Your task to perform on an android device: empty trash in the gmail app Image 0: 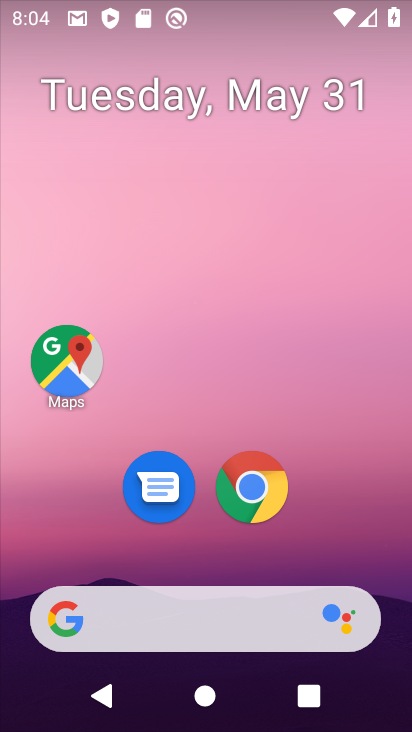
Step 0: drag from (151, 717) to (106, 38)
Your task to perform on an android device: empty trash in the gmail app Image 1: 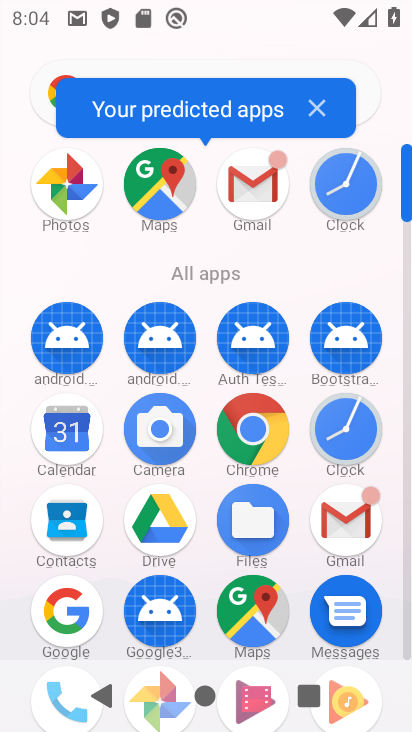
Step 1: click (254, 186)
Your task to perform on an android device: empty trash in the gmail app Image 2: 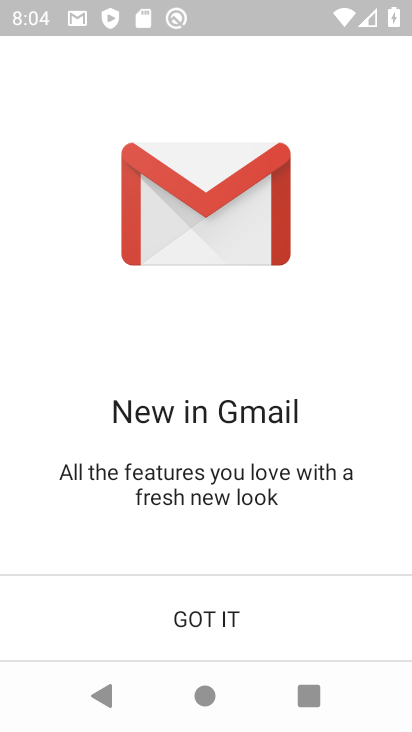
Step 2: click (196, 621)
Your task to perform on an android device: empty trash in the gmail app Image 3: 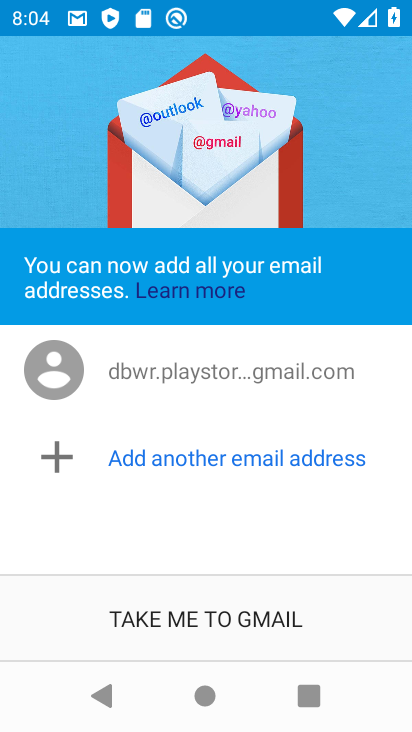
Step 3: click (167, 603)
Your task to perform on an android device: empty trash in the gmail app Image 4: 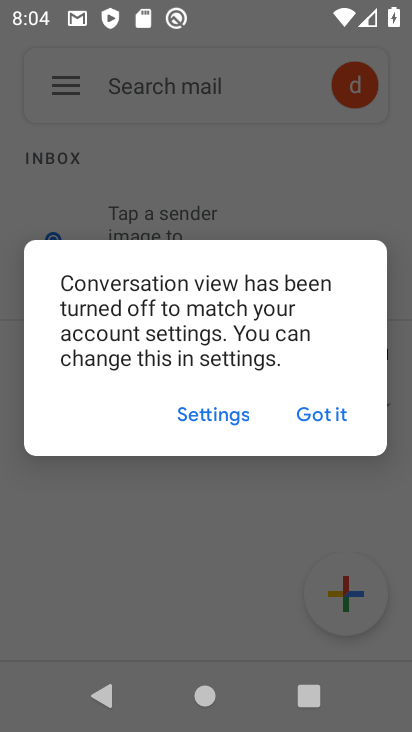
Step 4: click (322, 414)
Your task to perform on an android device: empty trash in the gmail app Image 5: 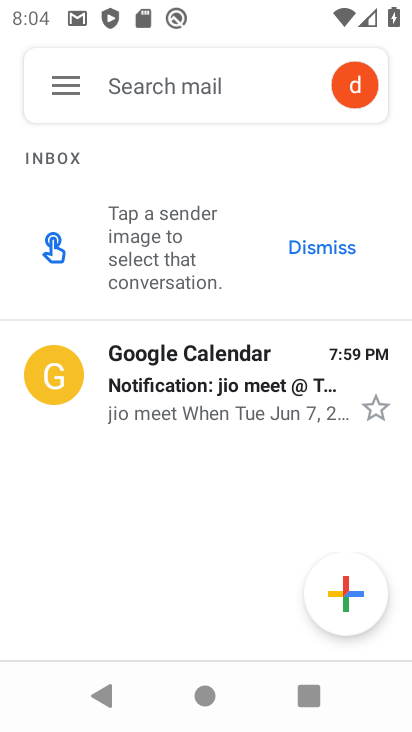
Step 5: click (44, 79)
Your task to perform on an android device: empty trash in the gmail app Image 6: 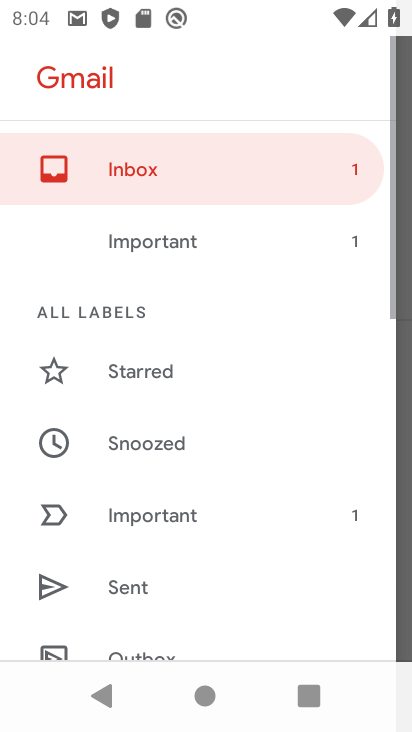
Step 6: drag from (138, 571) to (132, 97)
Your task to perform on an android device: empty trash in the gmail app Image 7: 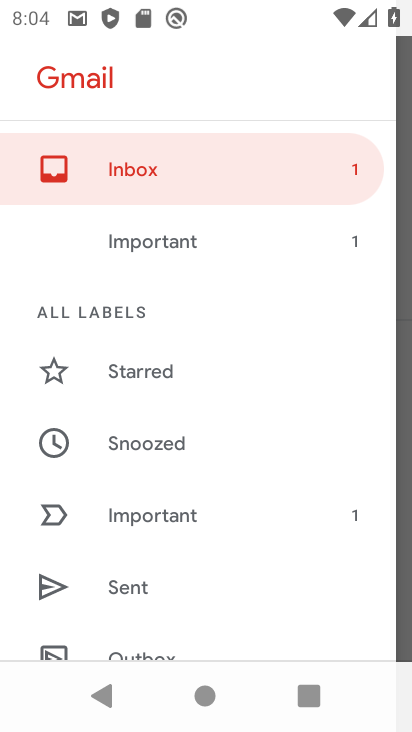
Step 7: drag from (186, 611) to (134, 150)
Your task to perform on an android device: empty trash in the gmail app Image 8: 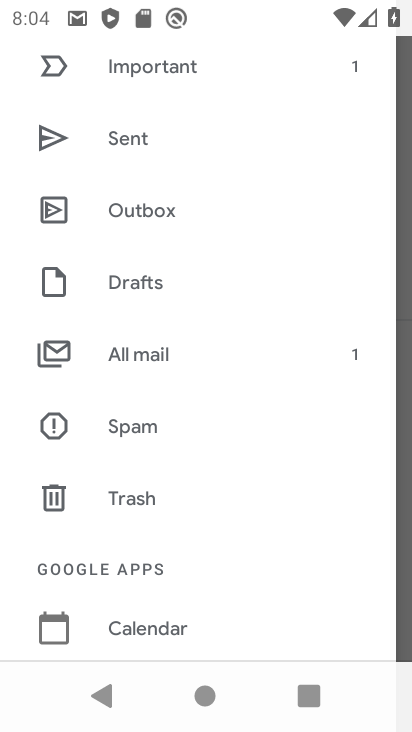
Step 8: click (136, 503)
Your task to perform on an android device: empty trash in the gmail app Image 9: 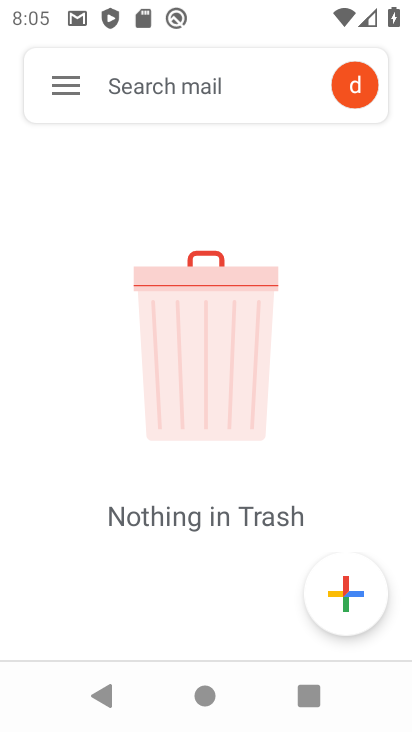
Step 9: task complete